Your task to perform on an android device: Search for a runner rug on Crate & Barrel. Image 0: 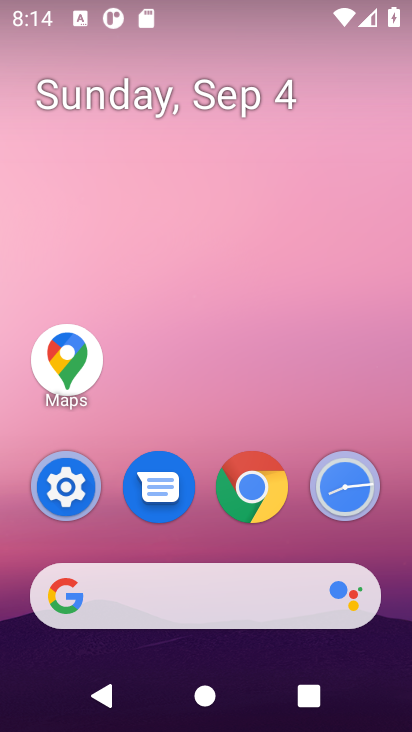
Step 0: click (205, 588)
Your task to perform on an android device: Search for a runner rug on Crate & Barrel. Image 1: 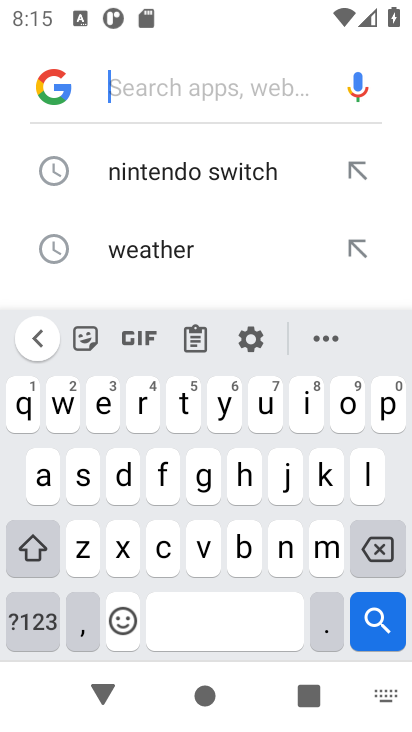
Step 1: type "Crate & Barrel."
Your task to perform on an android device: Search for a runner rug on Crate & Barrel. Image 2: 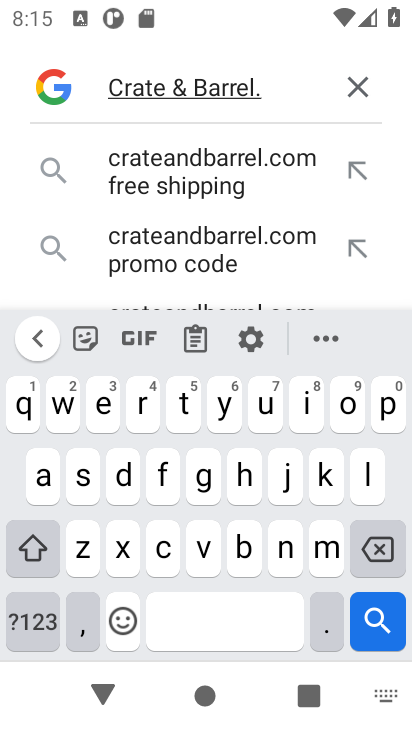
Step 2: click (280, 168)
Your task to perform on an android device: Search for a runner rug on Crate & Barrel. Image 3: 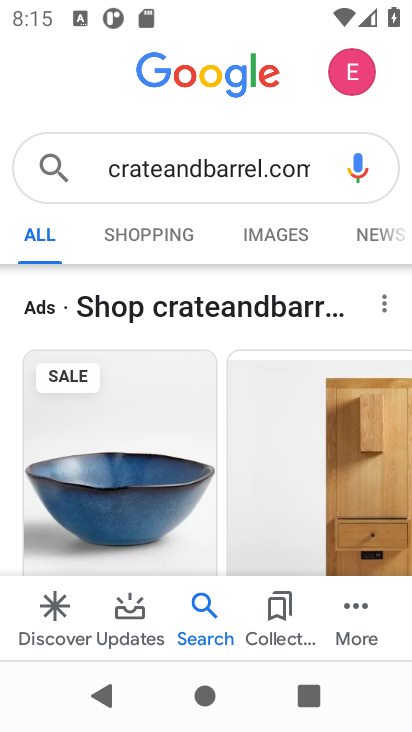
Step 3: drag from (80, 448) to (142, 74)
Your task to perform on an android device: Search for a runner rug on Crate & Barrel. Image 4: 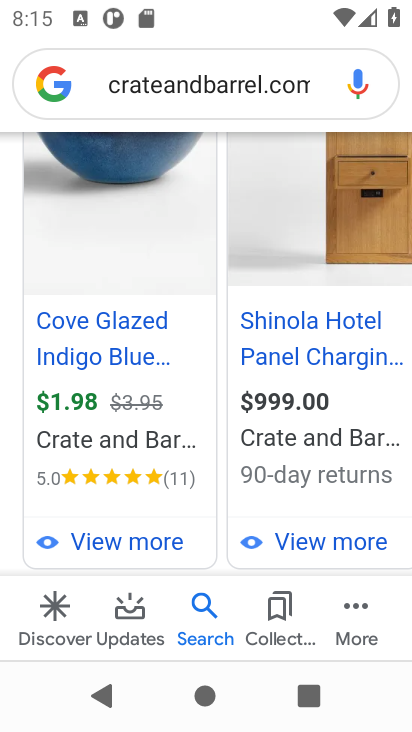
Step 4: drag from (122, 434) to (186, 136)
Your task to perform on an android device: Search for a runner rug on Crate & Barrel. Image 5: 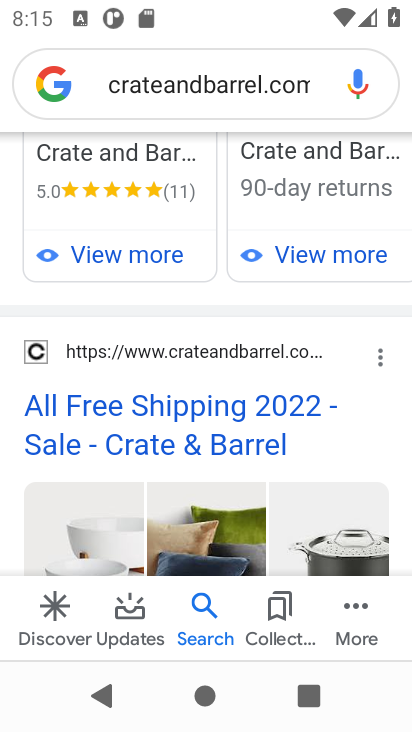
Step 5: click (223, 397)
Your task to perform on an android device: Search for a runner rug on Crate & Barrel. Image 6: 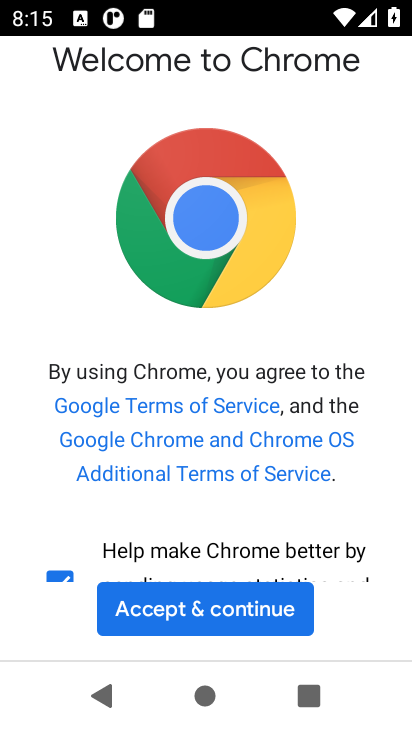
Step 6: click (239, 603)
Your task to perform on an android device: Search for a runner rug on Crate & Barrel. Image 7: 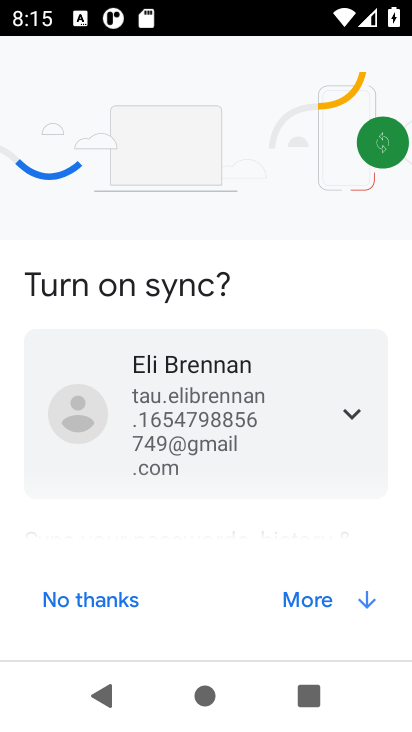
Step 7: click (358, 594)
Your task to perform on an android device: Search for a runner rug on Crate & Barrel. Image 8: 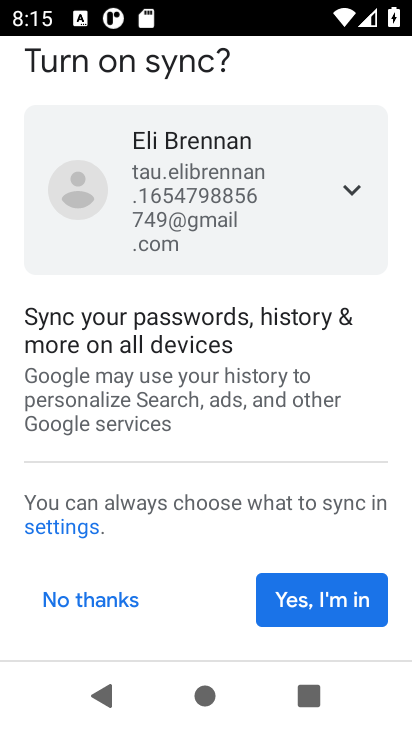
Step 8: click (358, 594)
Your task to perform on an android device: Search for a runner rug on Crate & Barrel. Image 9: 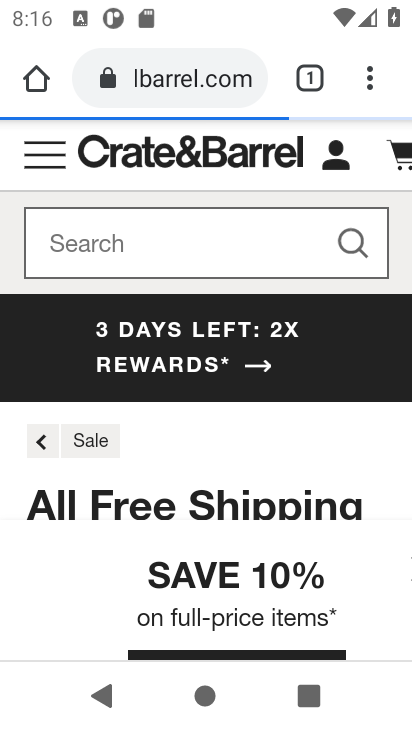
Step 9: click (168, 244)
Your task to perform on an android device: Search for a runner rug on Crate & Barrel. Image 10: 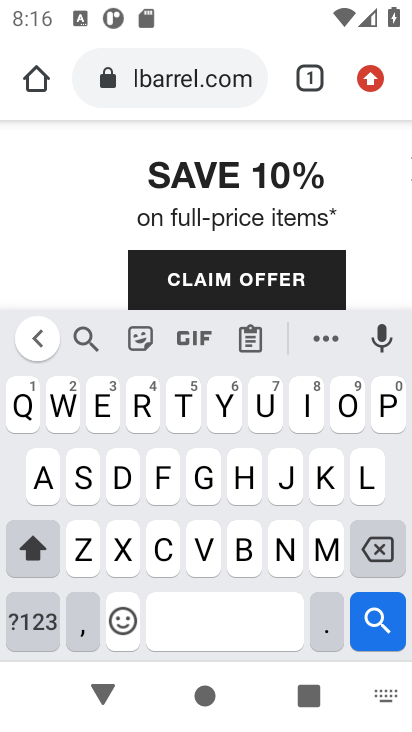
Step 10: type "runner rug"
Your task to perform on an android device: Search for a runner rug on Crate & Barrel. Image 11: 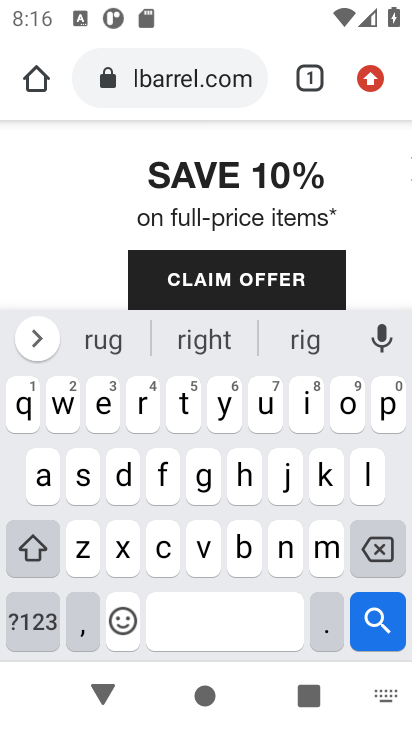
Step 11: press back button
Your task to perform on an android device: Search for a runner rug on Crate & Barrel. Image 12: 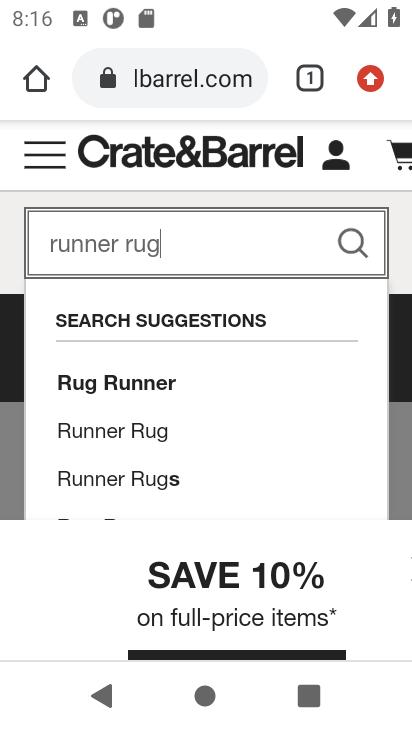
Step 12: click (125, 418)
Your task to perform on an android device: Search for a runner rug on Crate & Barrel. Image 13: 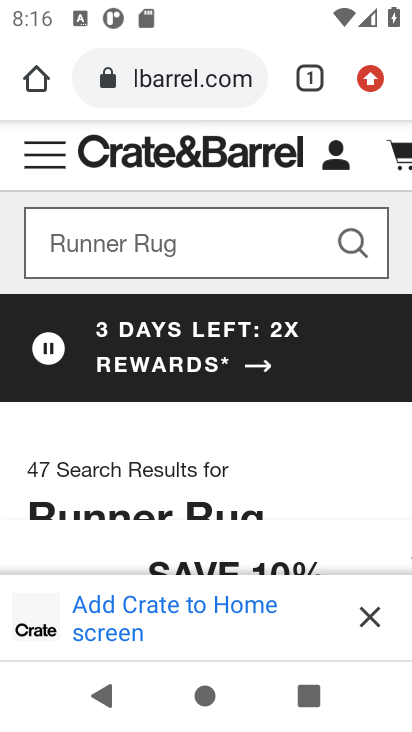
Step 13: drag from (335, 589) to (304, 104)
Your task to perform on an android device: Search for a runner rug on Crate & Barrel. Image 14: 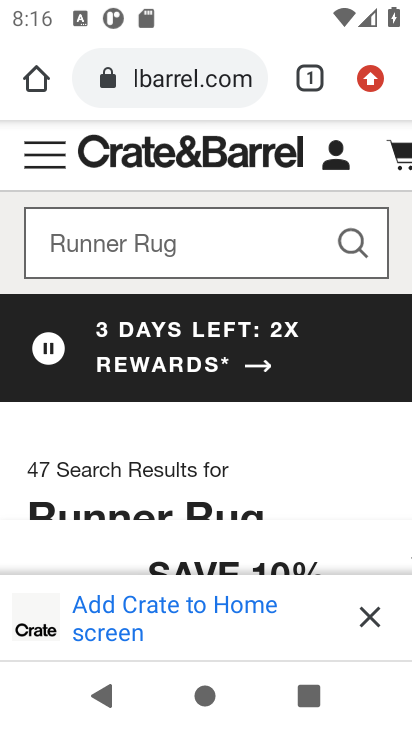
Step 14: drag from (298, 446) to (270, 27)
Your task to perform on an android device: Search for a runner rug on Crate & Barrel. Image 15: 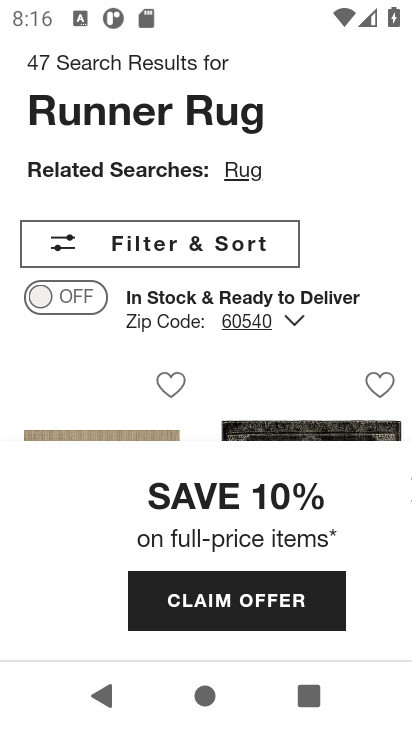
Step 15: drag from (115, 394) to (192, 8)
Your task to perform on an android device: Search for a runner rug on Crate & Barrel. Image 16: 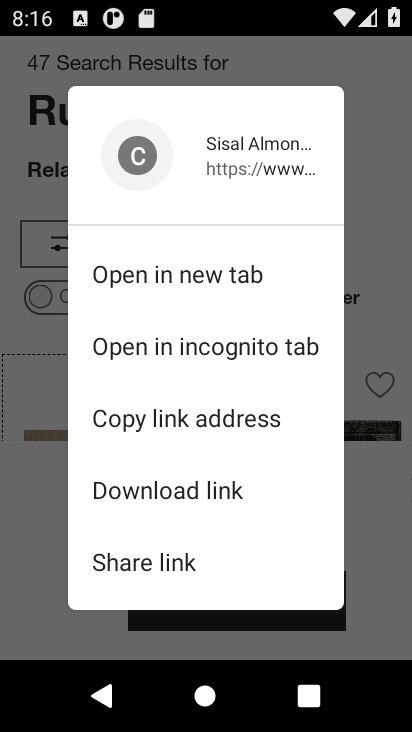
Step 16: click (5, 286)
Your task to perform on an android device: Search for a runner rug on Crate & Barrel. Image 17: 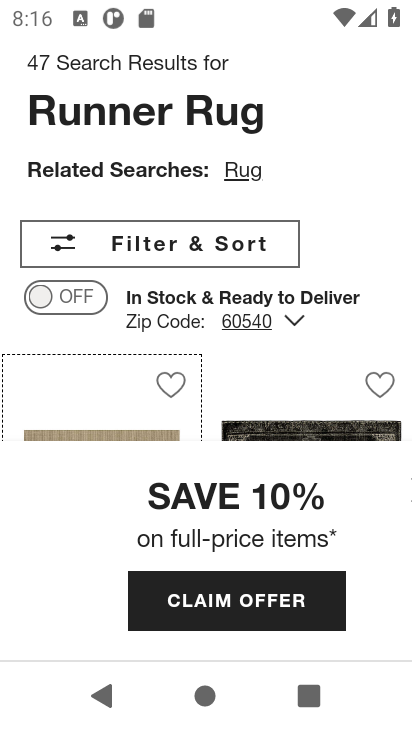
Step 17: task complete